Your task to perform on an android device: turn on data saver in the chrome app Image 0: 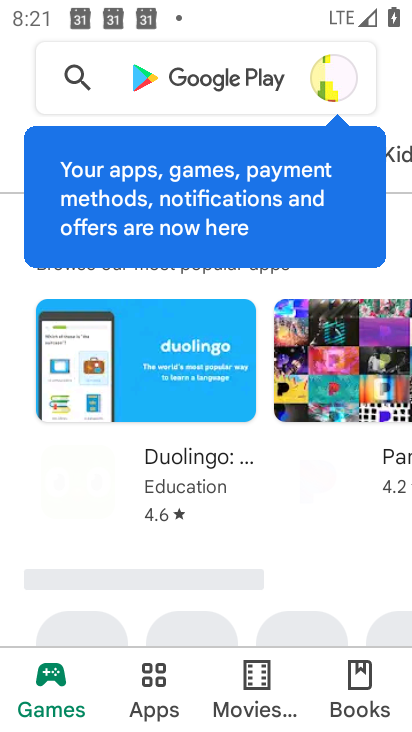
Step 0: press home button
Your task to perform on an android device: turn on data saver in the chrome app Image 1: 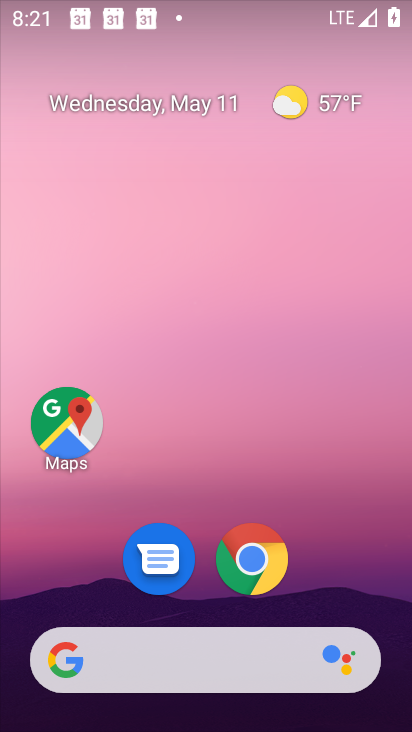
Step 1: click (234, 567)
Your task to perform on an android device: turn on data saver in the chrome app Image 2: 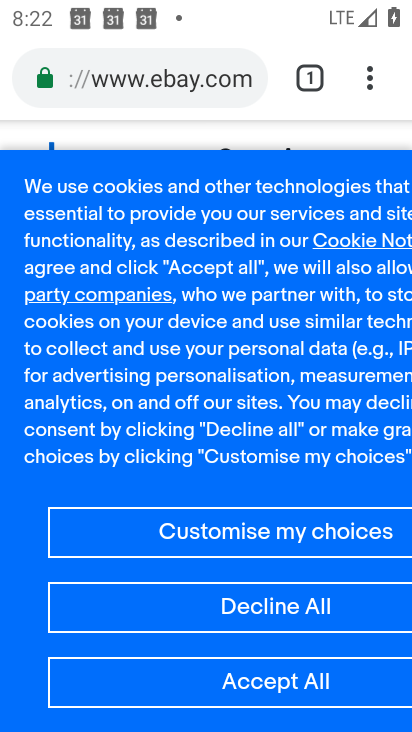
Step 2: drag from (372, 91) to (173, 632)
Your task to perform on an android device: turn on data saver in the chrome app Image 3: 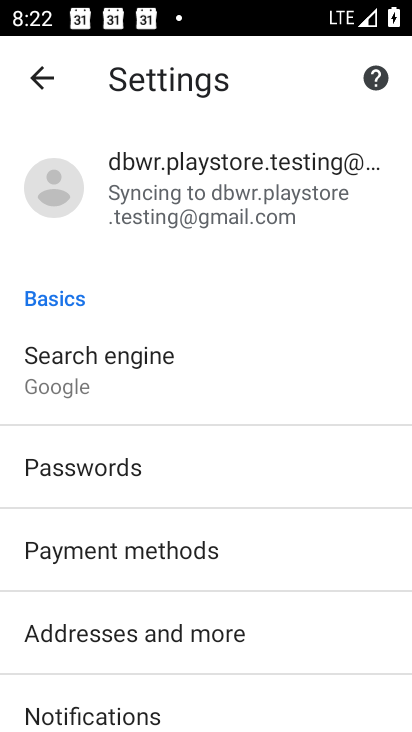
Step 3: drag from (236, 661) to (171, 133)
Your task to perform on an android device: turn on data saver in the chrome app Image 4: 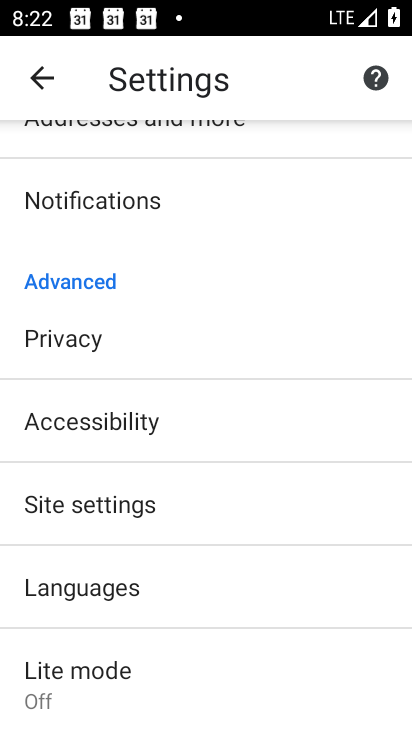
Step 4: click (109, 685)
Your task to perform on an android device: turn on data saver in the chrome app Image 5: 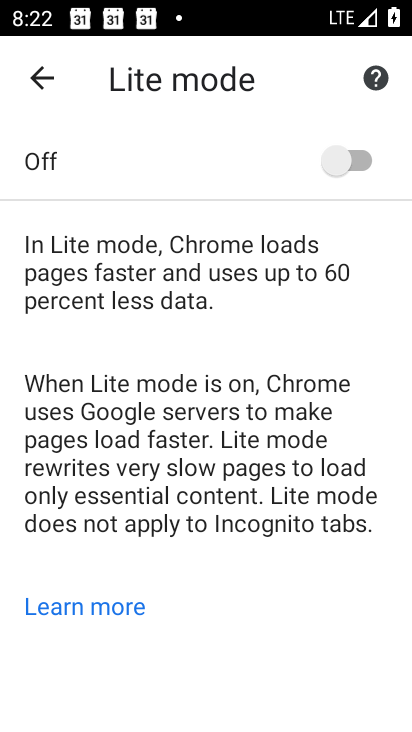
Step 5: click (349, 157)
Your task to perform on an android device: turn on data saver in the chrome app Image 6: 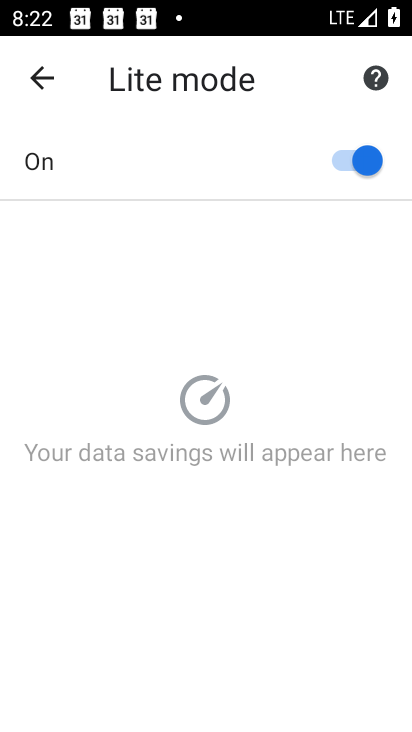
Step 6: task complete